Your task to perform on an android device: turn off airplane mode Image 0: 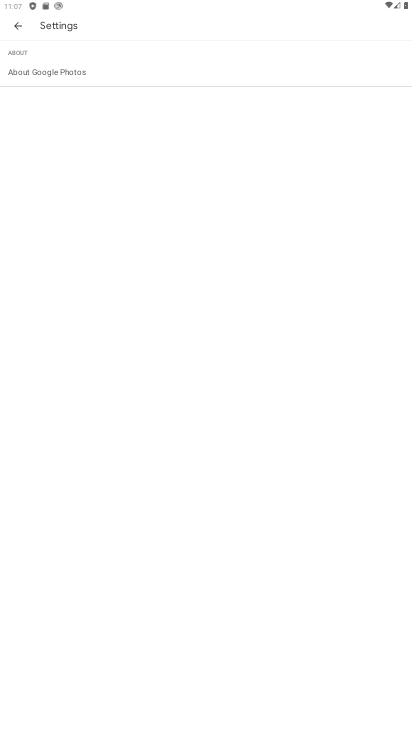
Step 0: press home button
Your task to perform on an android device: turn off airplane mode Image 1: 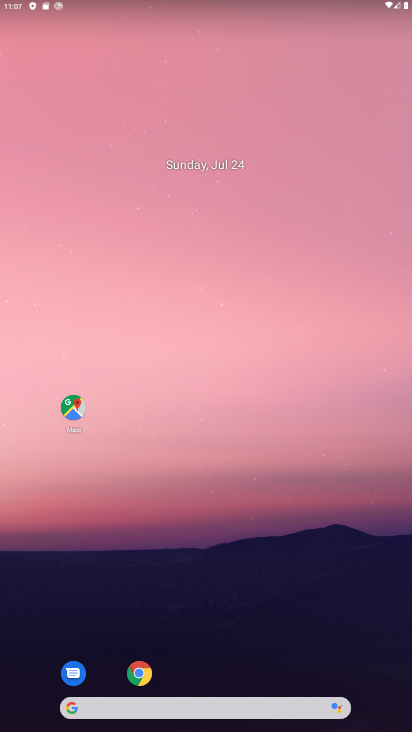
Step 1: drag from (204, 706) to (258, 181)
Your task to perform on an android device: turn off airplane mode Image 2: 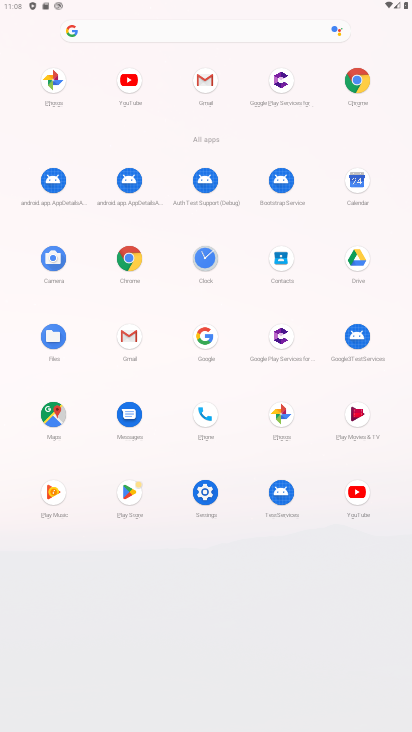
Step 2: click (205, 491)
Your task to perform on an android device: turn off airplane mode Image 3: 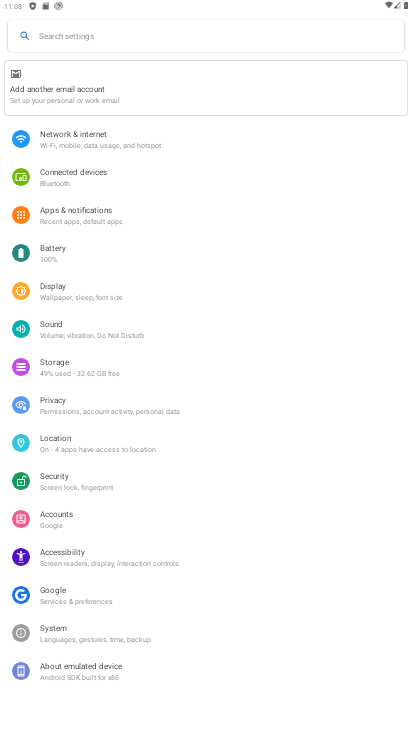
Step 3: click (103, 147)
Your task to perform on an android device: turn off airplane mode Image 4: 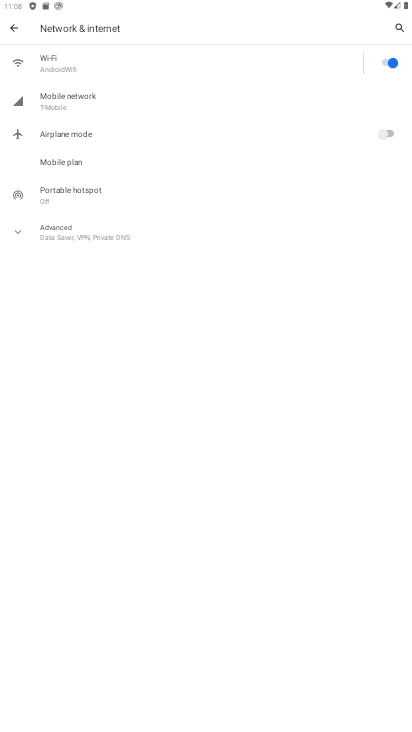
Step 4: task complete